Your task to perform on an android device: Go to sound settings Image 0: 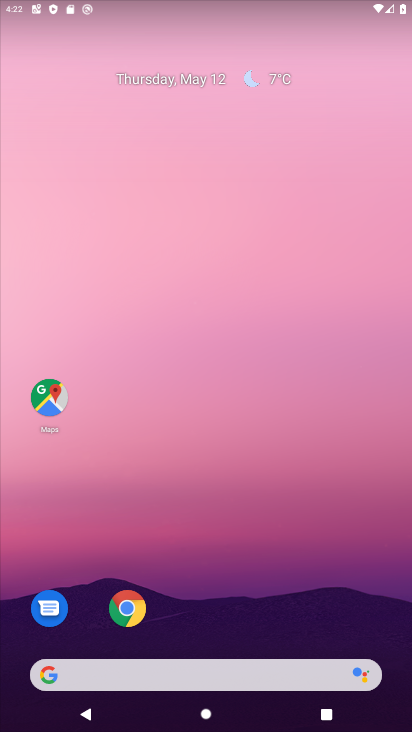
Step 0: drag from (193, 609) to (337, 146)
Your task to perform on an android device: Go to sound settings Image 1: 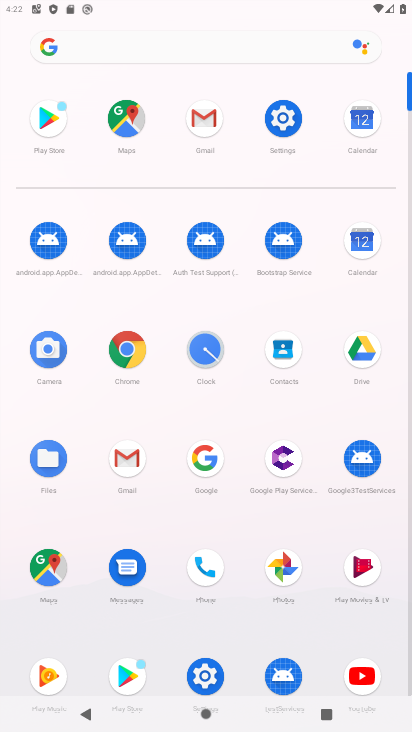
Step 1: click (285, 136)
Your task to perform on an android device: Go to sound settings Image 2: 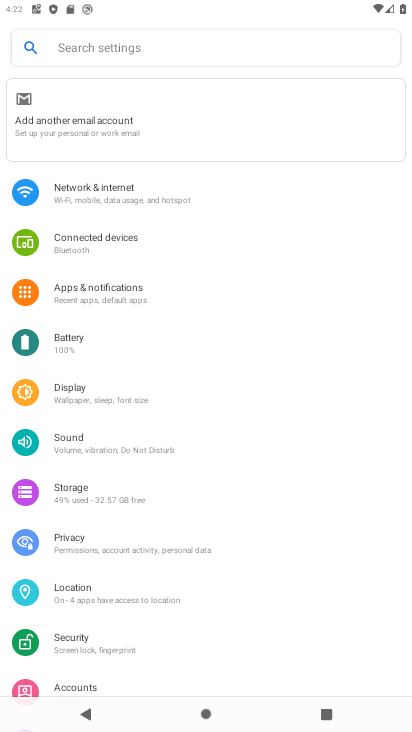
Step 2: click (115, 463)
Your task to perform on an android device: Go to sound settings Image 3: 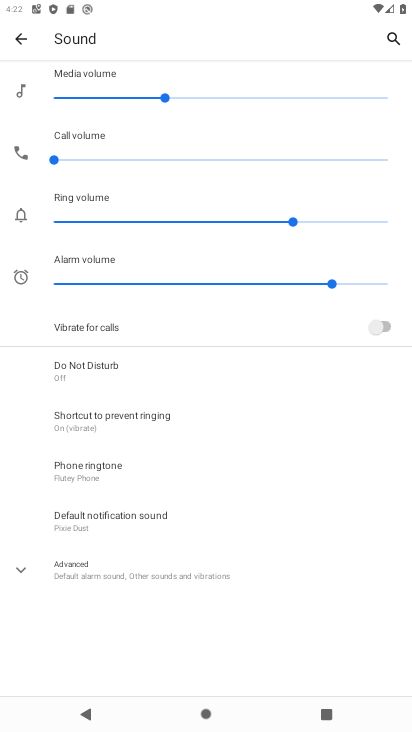
Step 3: task complete